Your task to perform on an android device: Open maps Image 0: 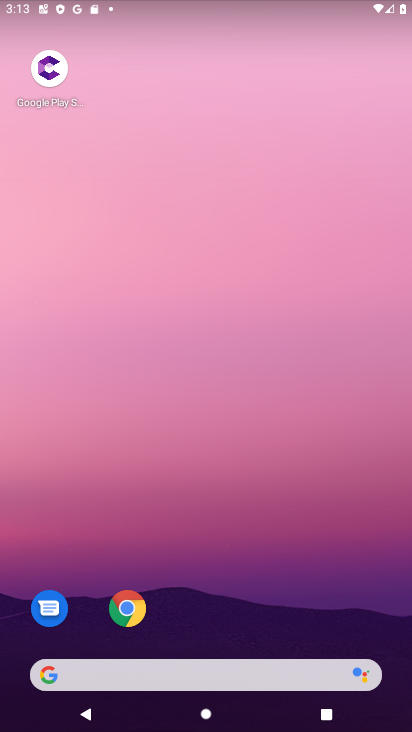
Step 0: drag from (321, 624) to (272, 17)
Your task to perform on an android device: Open maps Image 1: 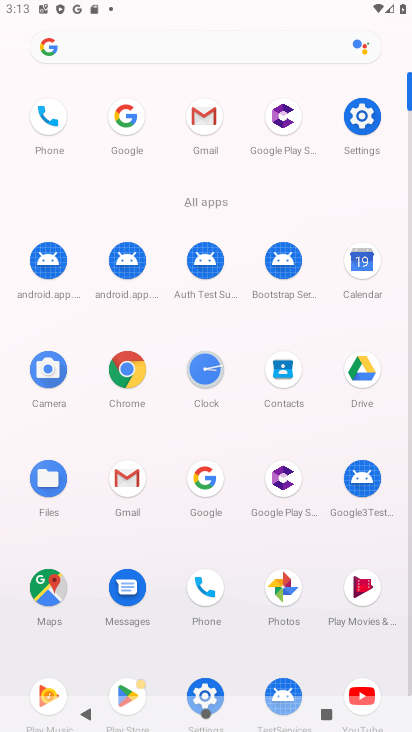
Step 1: click (47, 580)
Your task to perform on an android device: Open maps Image 2: 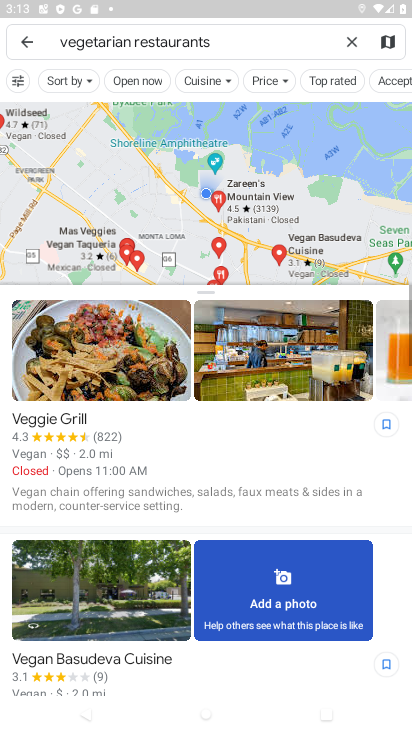
Step 2: task complete